Your task to perform on an android device: Toggle the flashlight Image 0: 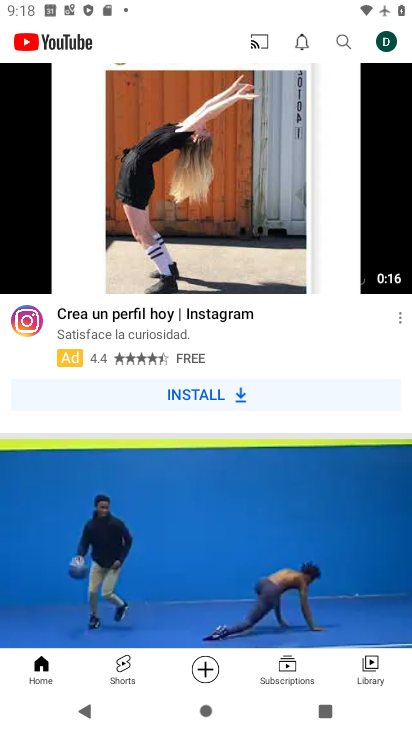
Step 0: press home button
Your task to perform on an android device: Toggle the flashlight Image 1: 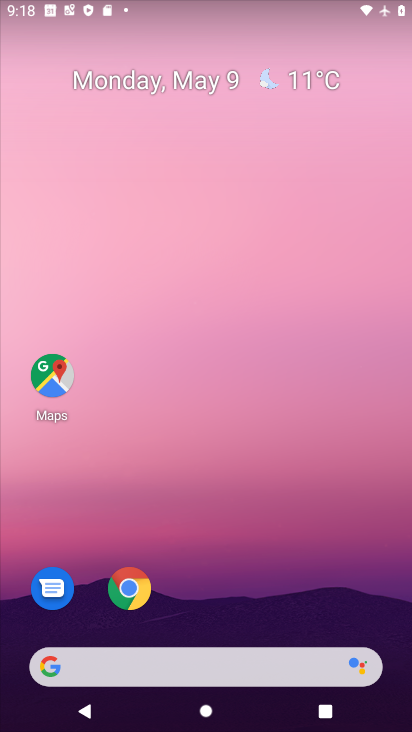
Step 1: task complete